Your task to perform on an android device: Go to Google Image 0: 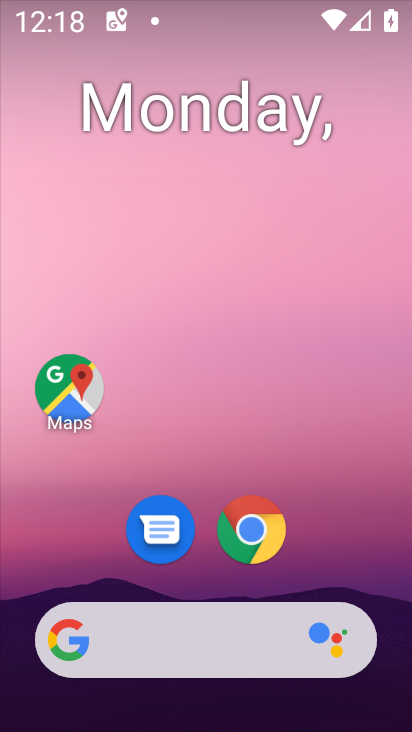
Step 0: drag from (227, 630) to (181, 6)
Your task to perform on an android device: Go to Google Image 1: 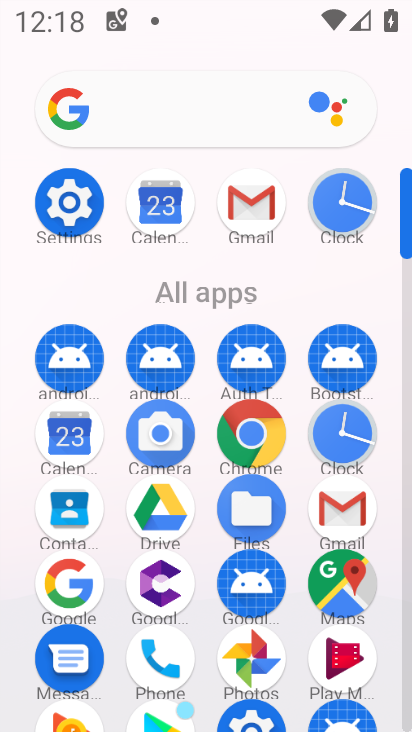
Step 1: click (84, 588)
Your task to perform on an android device: Go to Google Image 2: 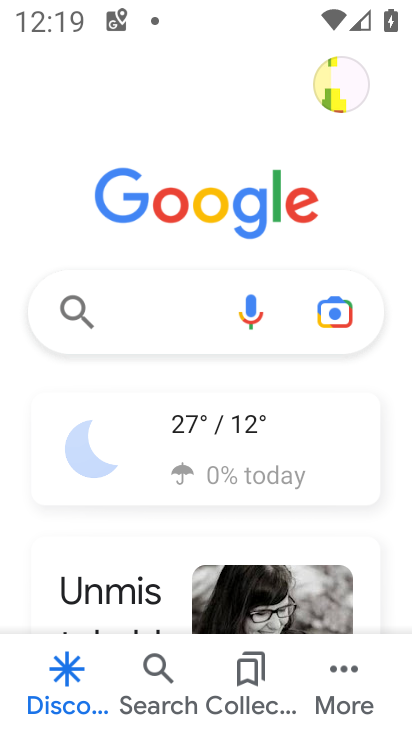
Step 2: task complete